Your task to perform on an android device: Open Wikipedia Image 0: 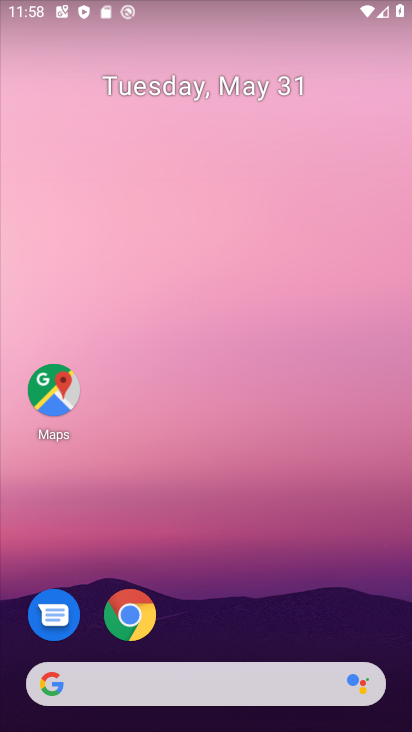
Step 0: task complete